Your task to perform on an android device: clear history in the chrome app Image 0: 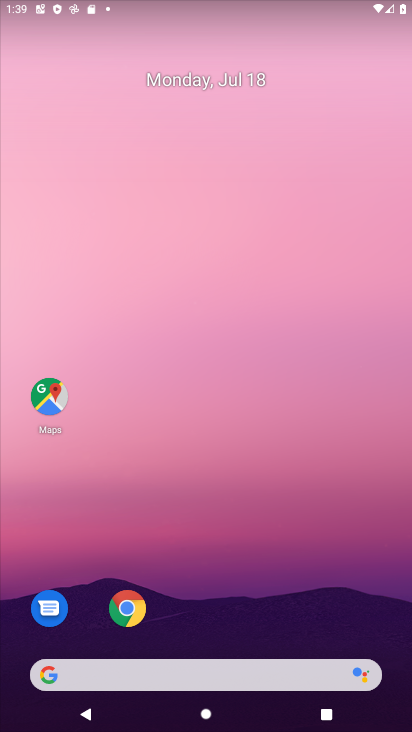
Step 0: drag from (380, 651) to (169, 76)
Your task to perform on an android device: clear history in the chrome app Image 1: 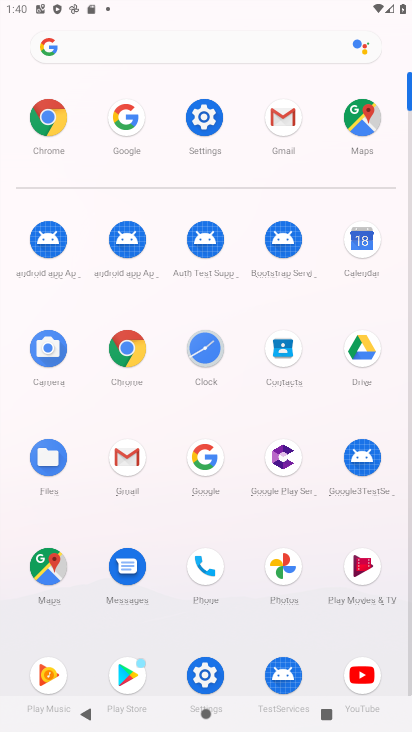
Step 1: click (129, 349)
Your task to perform on an android device: clear history in the chrome app Image 2: 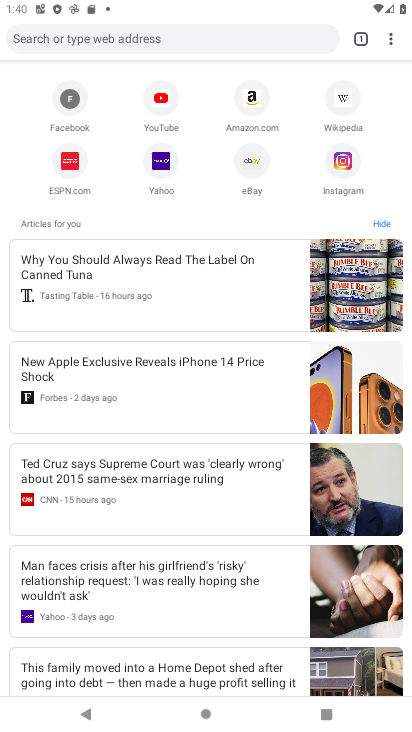
Step 2: click (392, 37)
Your task to perform on an android device: clear history in the chrome app Image 3: 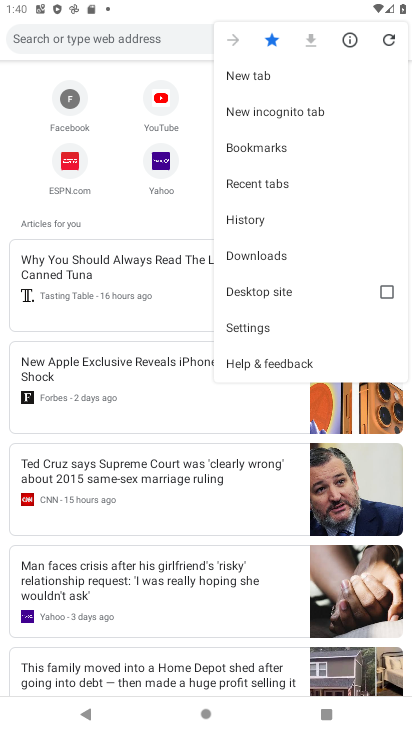
Step 3: click (252, 229)
Your task to perform on an android device: clear history in the chrome app Image 4: 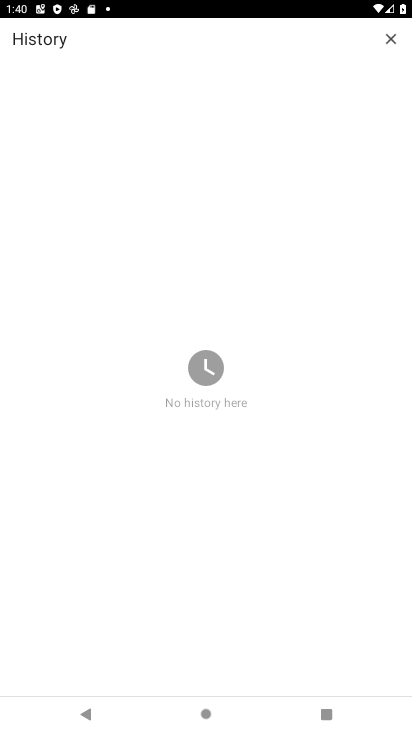
Step 4: task complete